Your task to perform on an android device: Open the Play Movies app and select the watchlist tab. Image 0: 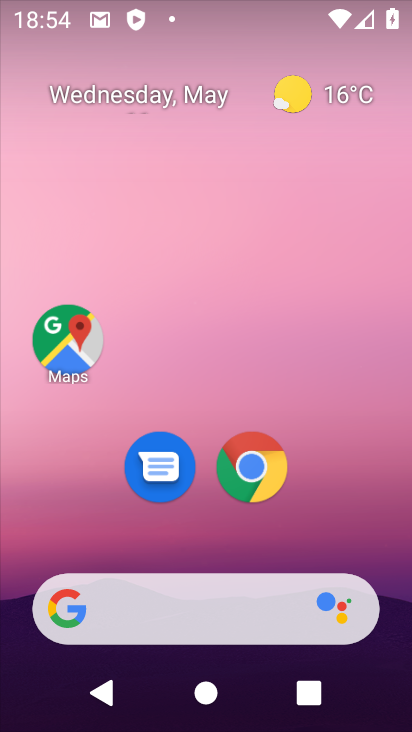
Step 0: drag from (330, 516) to (133, 3)
Your task to perform on an android device: Open the Play Movies app and select the watchlist tab. Image 1: 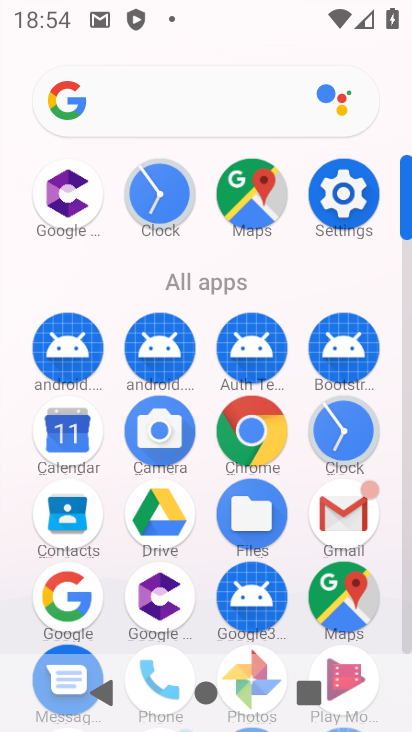
Step 1: drag from (200, 621) to (185, 191)
Your task to perform on an android device: Open the Play Movies app and select the watchlist tab. Image 2: 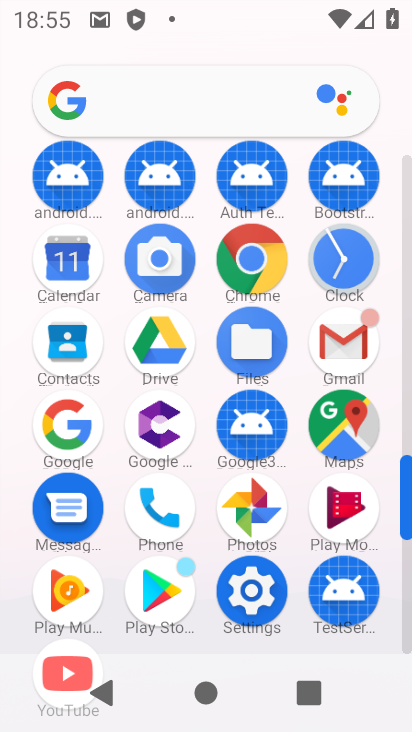
Step 2: click (344, 502)
Your task to perform on an android device: Open the Play Movies app and select the watchlist tab. Image 3: 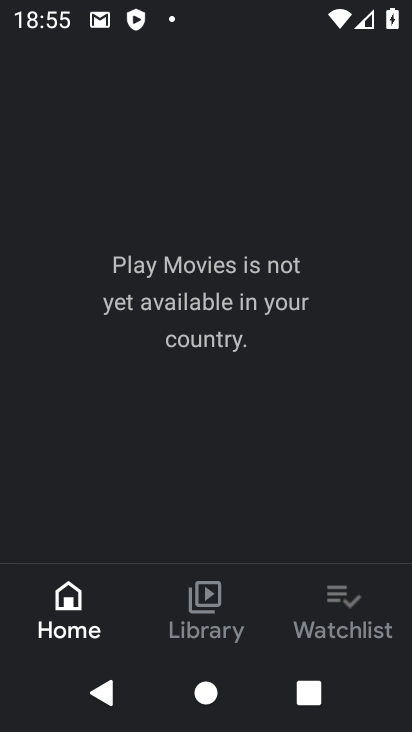
Step 3: click (344, 597)
Your task to perform on an android device: Open the Play Movies app and select the watchlist tab. Image 4: 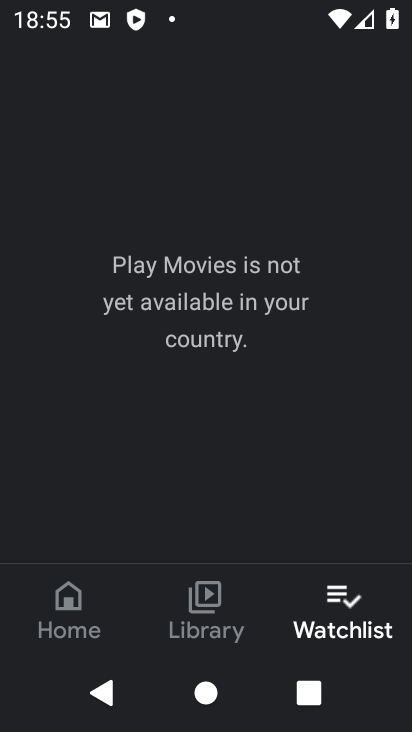
Step 4: task complete